Your task to perform on an android device: Open Chrome and go to settings Image 0: 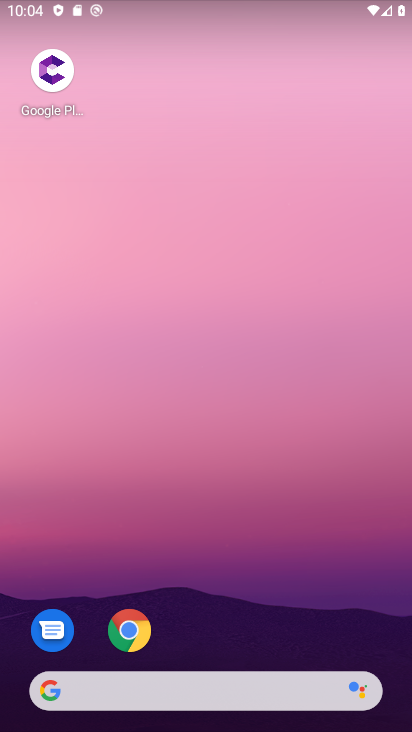
Step 0: drag from (302, 630) to (368, 150)
Your task to perform on an android device: Open Chrome and go to settings Image 1: 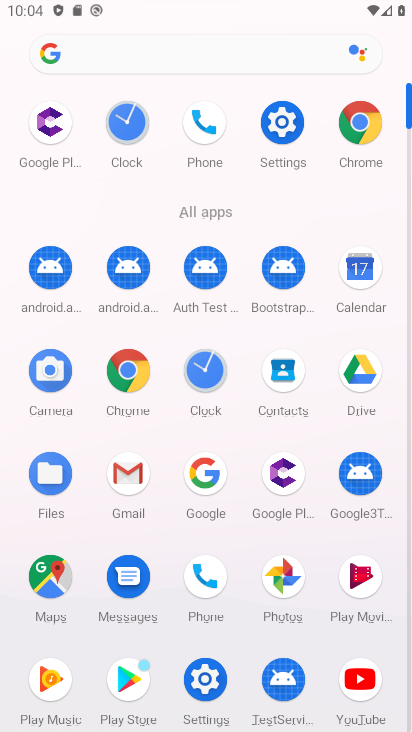
Step 1: click (354, 136)
Your task to perform on an android device: Open Chrome and go to settings Image 2: 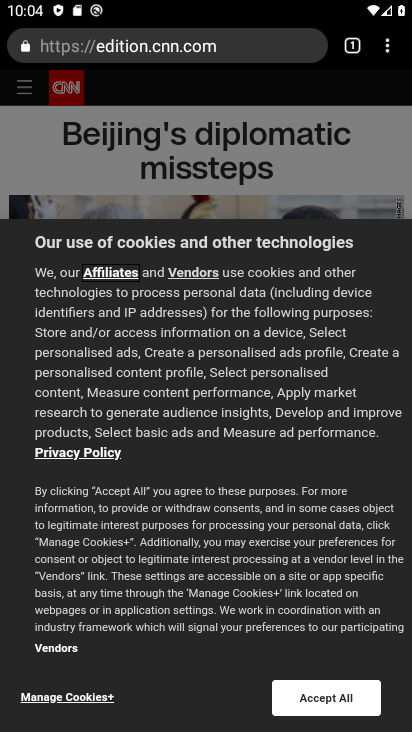
Step 2: click (391, 51)
Your task to perform on an android device: Open Chrome and go to settings Image 3: 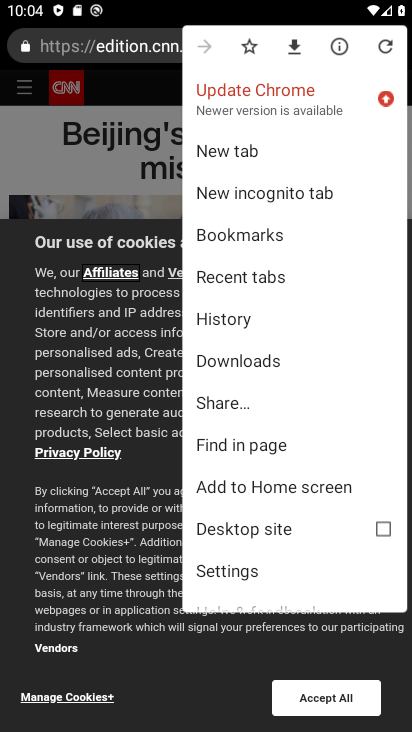
Step 3: drag from (319, 398) to (342, 268)
Your task to perform on an android device: Open Chrome and go to settings Image 4: 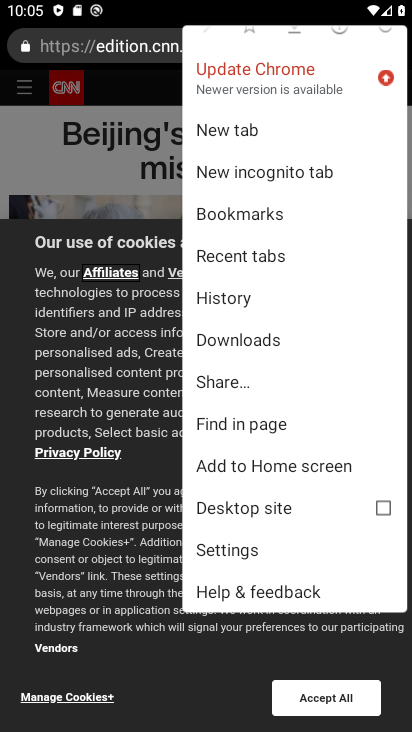
Step 4: click (261, 554)
Your task to perform on an android device: Open Chrome and go to settings Image 5: 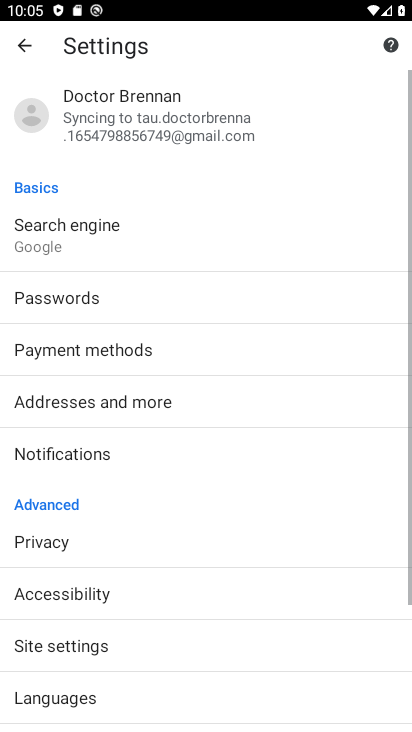
Step 5: task complete